Your task to perform on an android device: check out phone information Image 0: 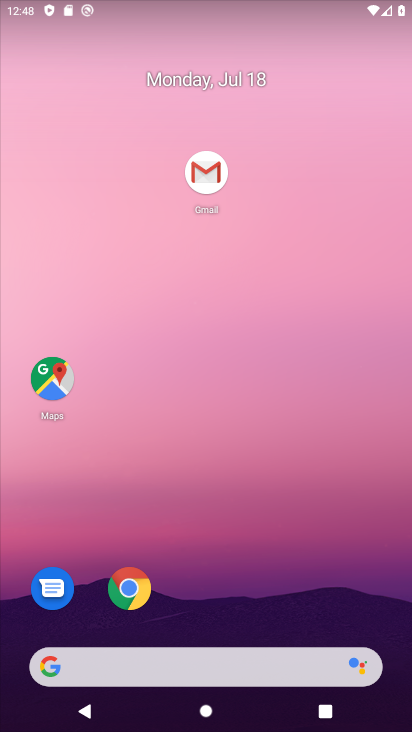
Step 0: drag from (245, 481) to (259, 361)
Your task to perform on an android device: check out phone information Image 1: 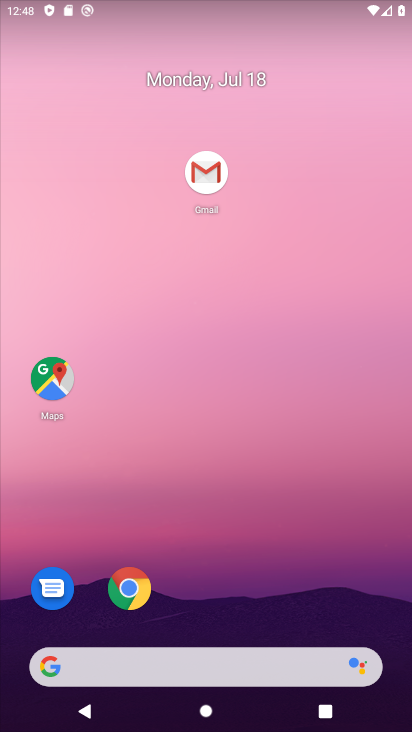
Step 1: drag from (243, 576) to (283, 263)
Your task to perform on an android device: check out phone information Image 2: 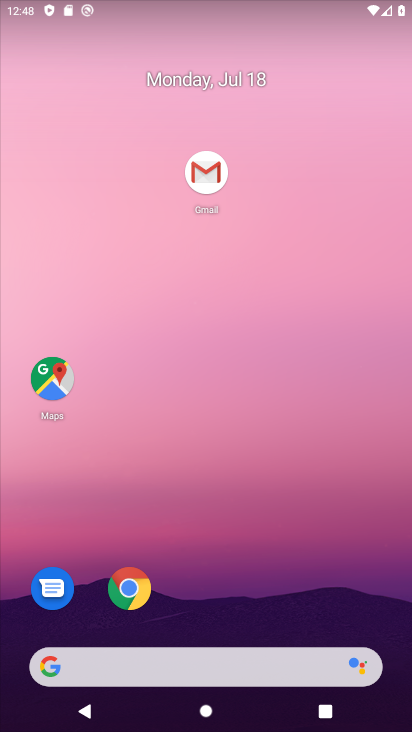
Step 2: drag from (270, 451) to (300, 234)
Your task to perform on an android device: check out phone information Image 3: 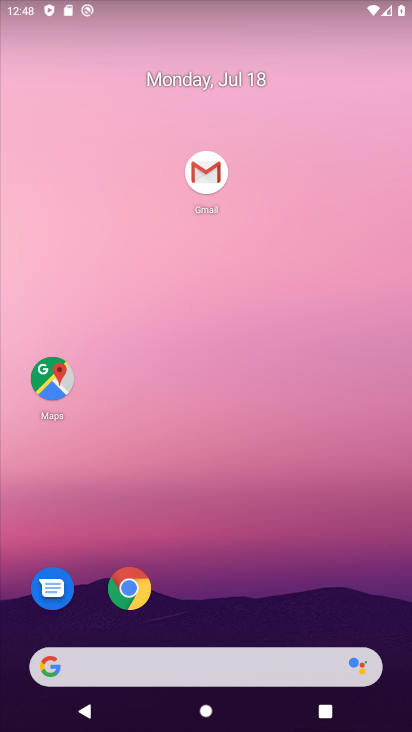
Step 3: drag from (282, 594) to (308, 114)
Your task to perform on an android device: check out phone information Image 4: 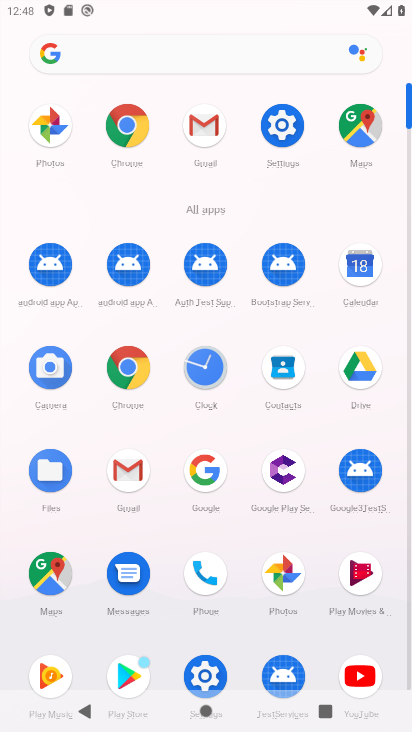
Step 4: click (282, 128)
Your task to perform on an android device: check out phone information Image 5: 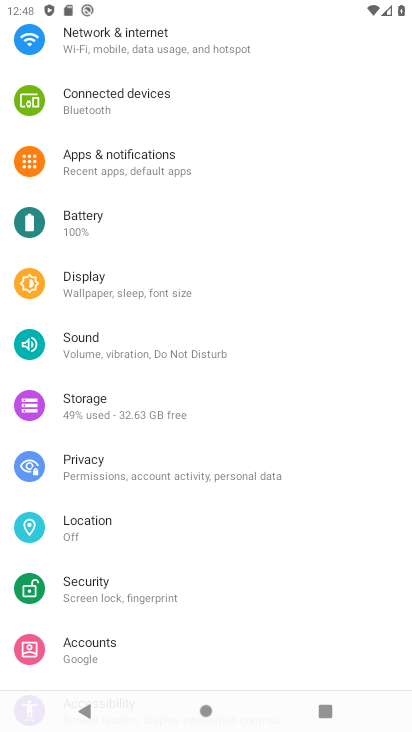
Step 5: drag from (194, 573) to (218, 179)
Your task to perform on an android device: check out phone information Image 6: 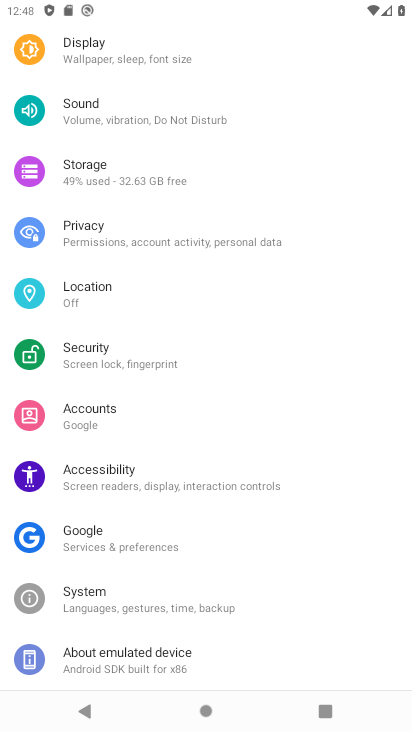
Step 6: click (136, 661)
Your task to perform on an android device: check out phone information Image 7: 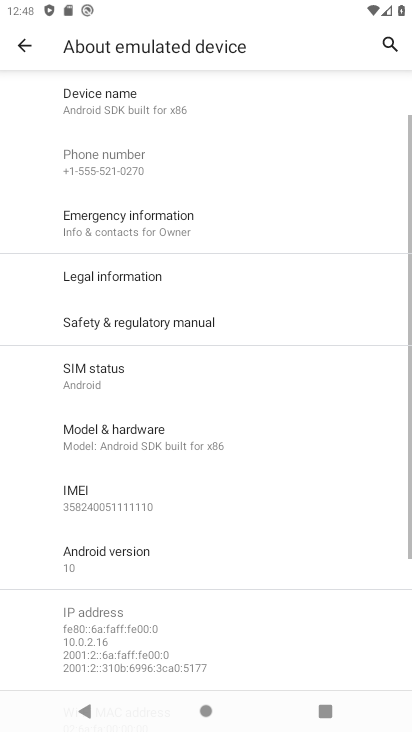
Step 7: task complete